Your task to perform on an android device: Play the last video I watched on Youtube Image 0: 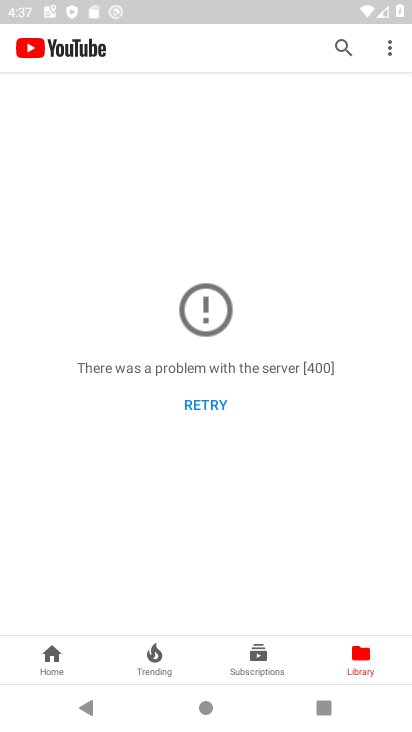
Step 0: press back button
Your task to perform on an android device: Play the last video I watched on Youtube Image 1: 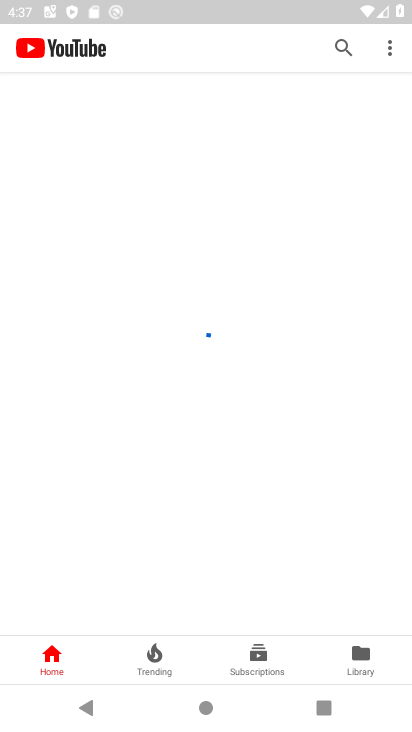
Step 1: press back button
Your task to perform on an android device: Play the last video I watched on Youtube Image 2: 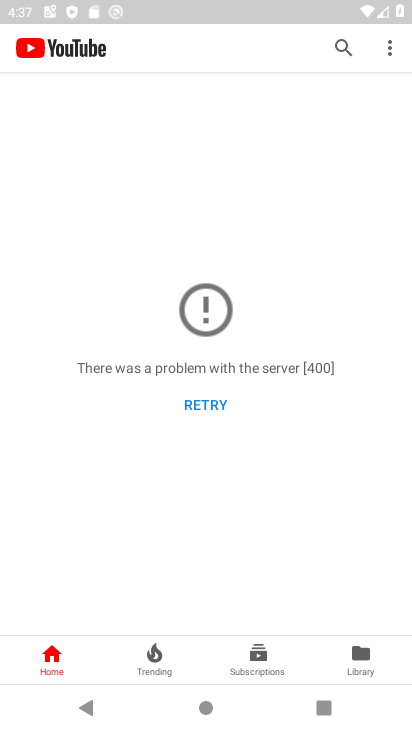
Step 2: press back button
Your task to perform on an android device: Play the last video I watched on Youtube Image 3: 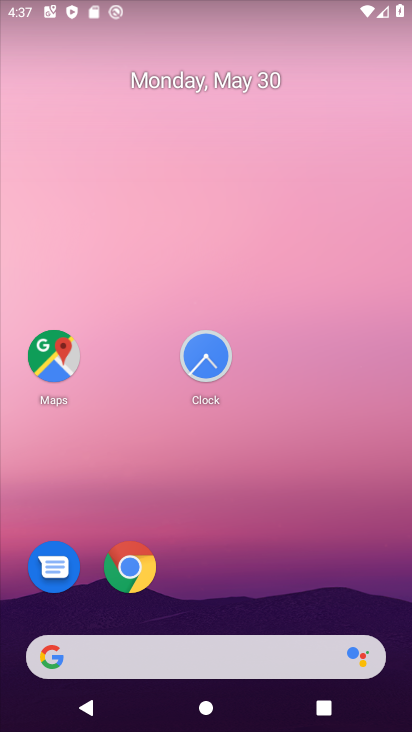
Step 3: drag from (233, 673) to (119, 1)
Your task to perform on an android device: Play the last video I watched on Youtube Image 4: 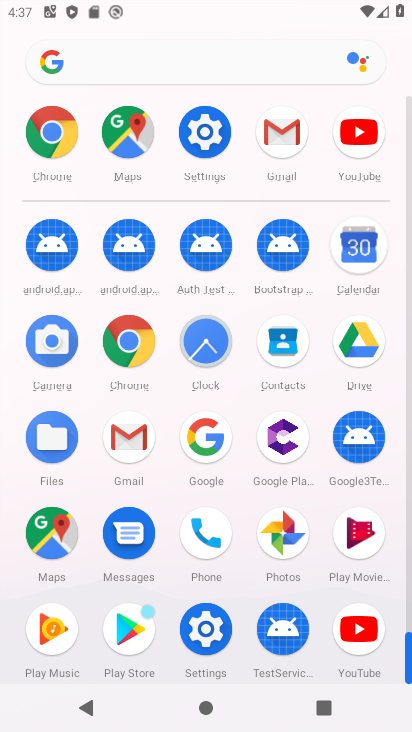
Step 4: click (359, 626)
Your task to perform on an android device: Play the last video I watched on Youtube Image 5: 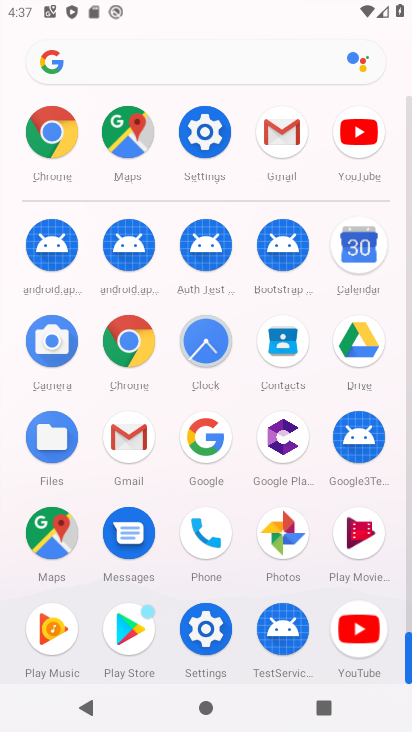
Step 5: click (353, 619)
Your task to perform on an android device: Play the last video I watched on Youtube Image 6: 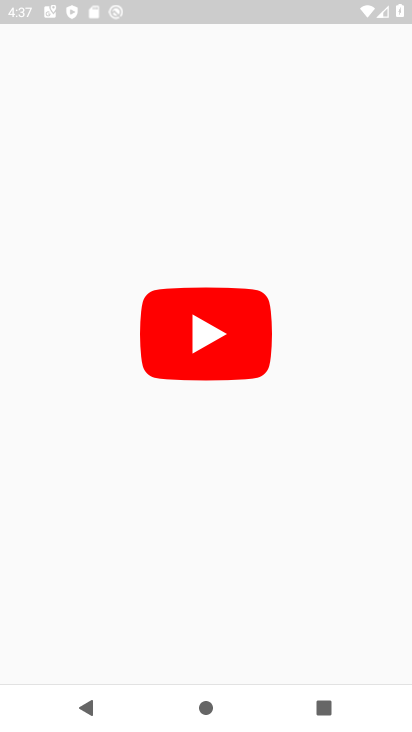
Step 6: click (357, 629)
Your task to perform on an android device: Play the last video I watched on Youtube Image 7: 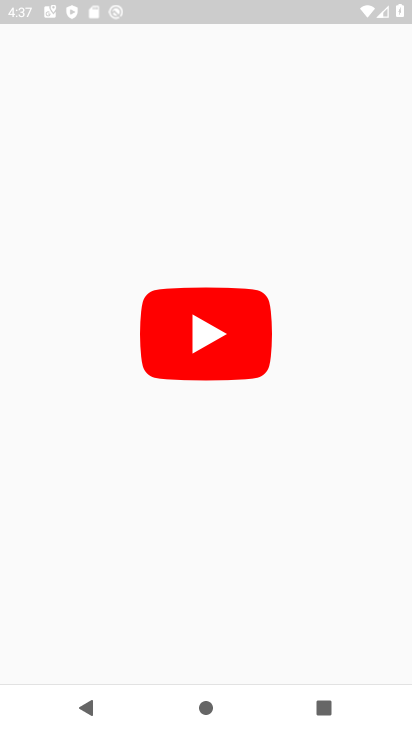
Step 7: click (359, 631)
Your task to perform on an android device: Play the last video I watched on Youtube Image 8: 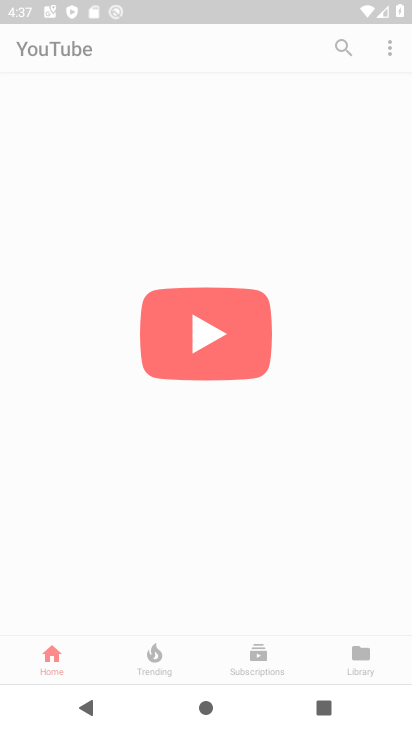
Step 8: click (359, 635)
Your task to perform on an android device: Play the last video I watched on Youtube Image 9: 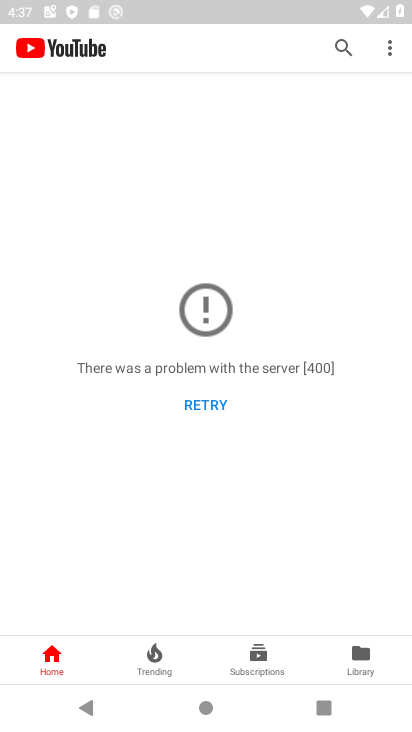
Step 9: task complete